Your task to perform on an android device: Open Reddit.com Image 0: 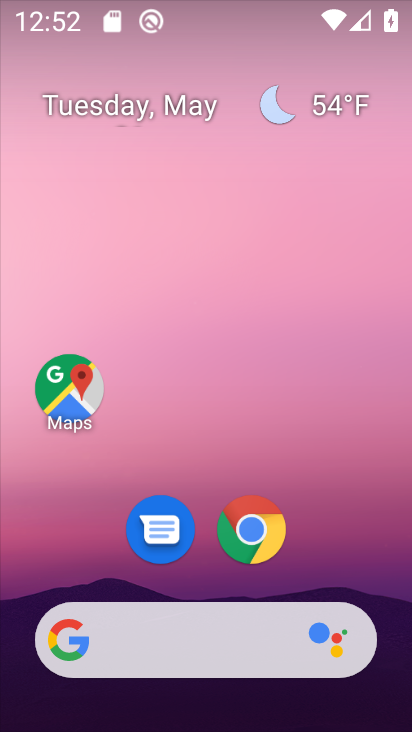
Step 0: click (251, 524)
Your task to perform on an android device: Open Reddit.com Image 1: 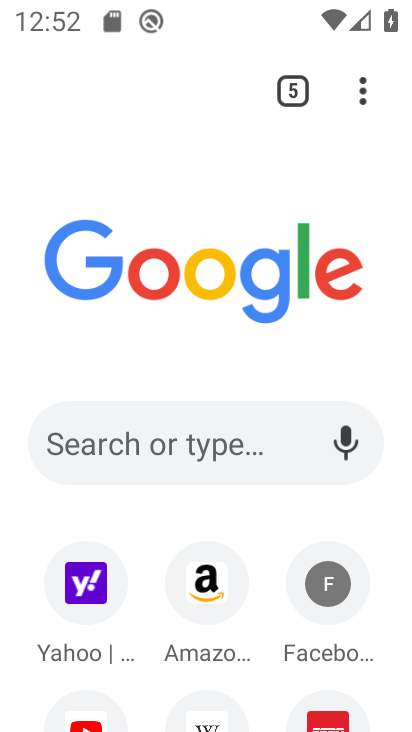
Step 1: click (262, 395)
Your task to perform on an android device: Open Reddit.com Image 2: 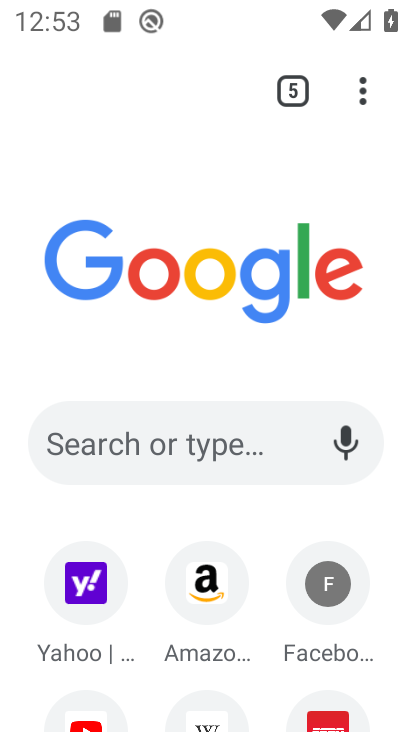
Step 2: click (138, 443)
Your task to perform on an android device: Open Reddit.com Image 3: 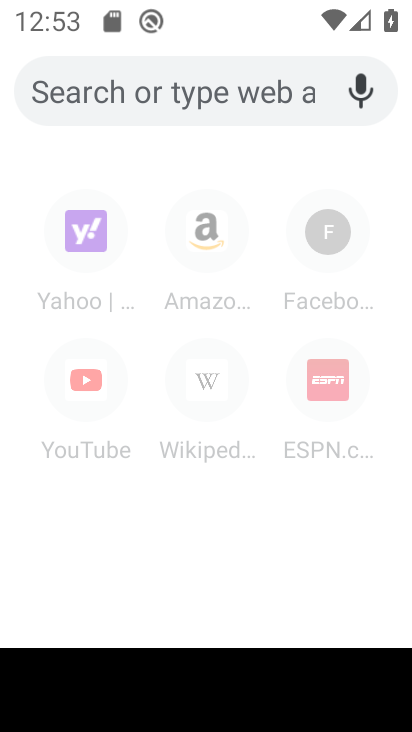
Step 3: type " Reddit.com"
Your task to perform on an android device: Open Reddit.com Image 4: 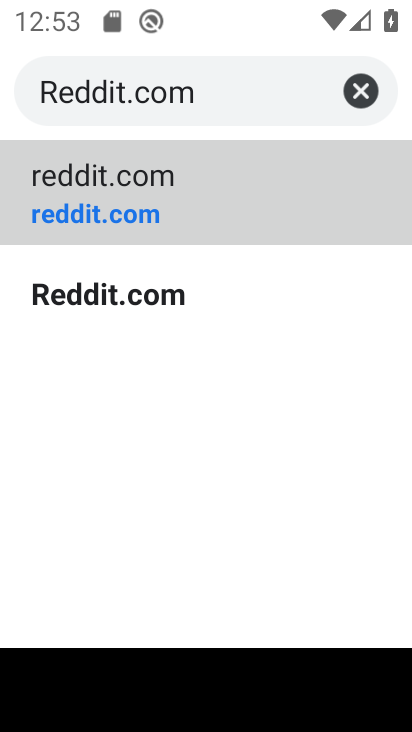
Step 4: click (234, 206)
Your task to perform on an android device: Open Reddit.com Image 5: 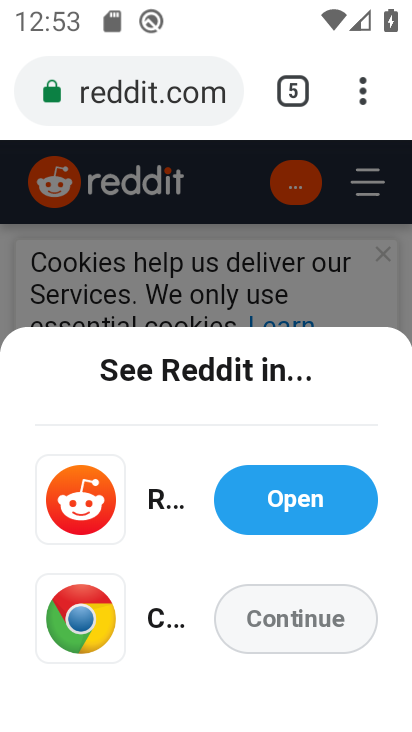
Step 5: task complete